Your task to perform on an android device: Go to Google Image 0: 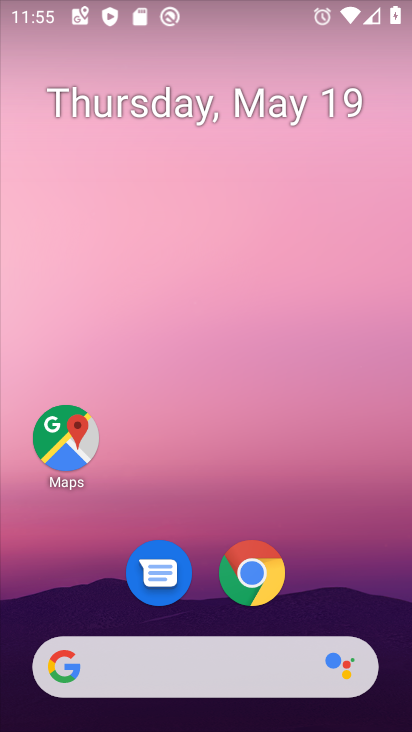
Step 0: click (74, 668)
Your task to perform on an android device: Go to Google Image 1: 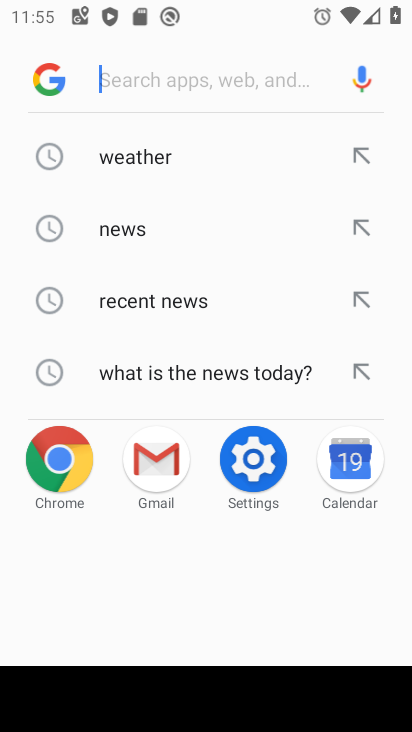
Step 1: click (57, 86)
Your task to perform on an android device: Go to Google Image 2: 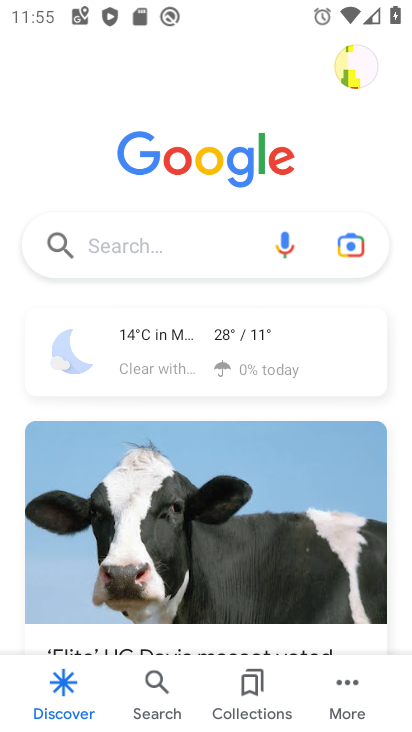
Step 2: task complete